Your task to perform on an android device: open a bookmark in the chrome app Image 0: 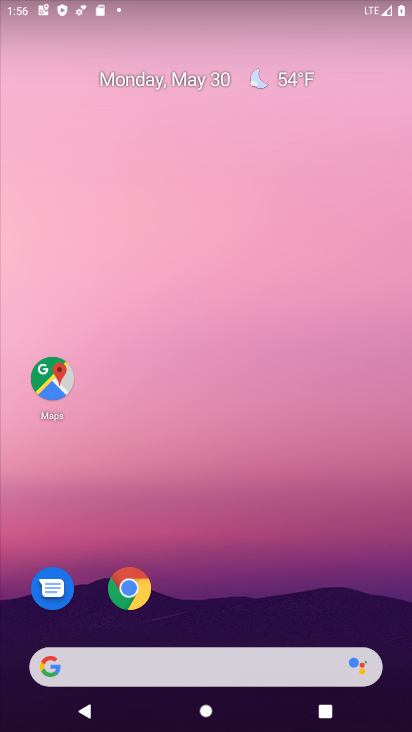
Step 0: click (130, 588)
Your task to perform on an android device: open a bookmark in the chrome app Image 1: 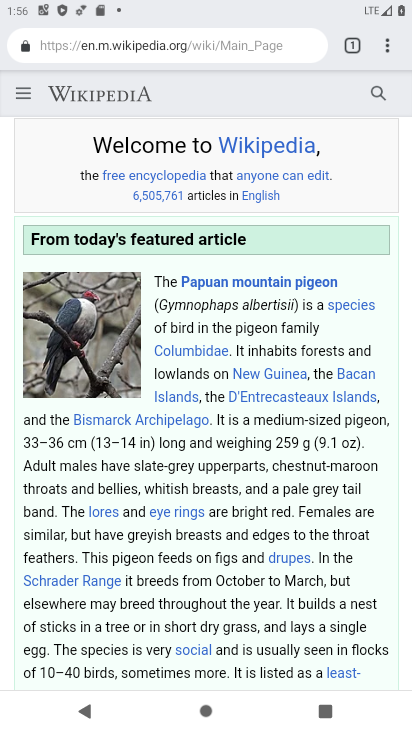
Step 1: click (386, 47)
Your task to perform on an android device: open a bookmark in the chrome app Image 2: 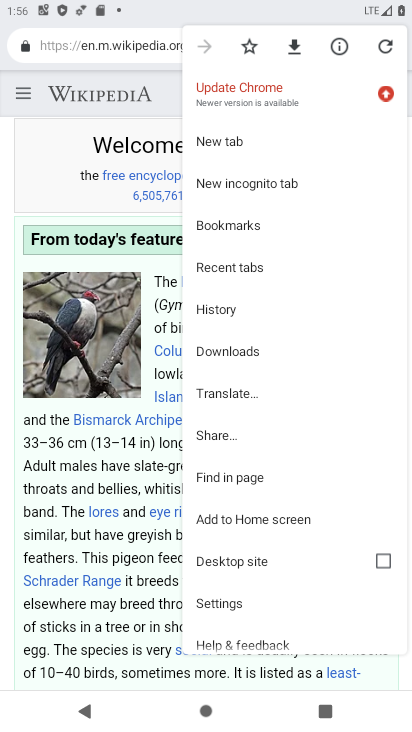
Step 2: click (242, 228)
Your task to perform on an android device: open a bookmark in the chrome app Image 3: 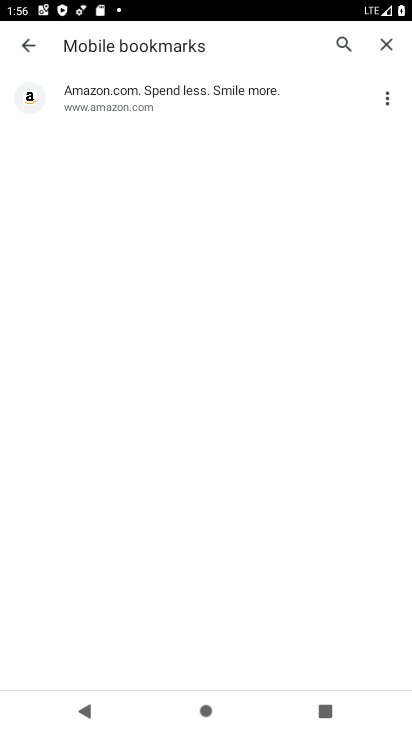
Step 3: click (139, 99)
Your task to perform on an android device: open a bookmark in the chrome app Image 4: 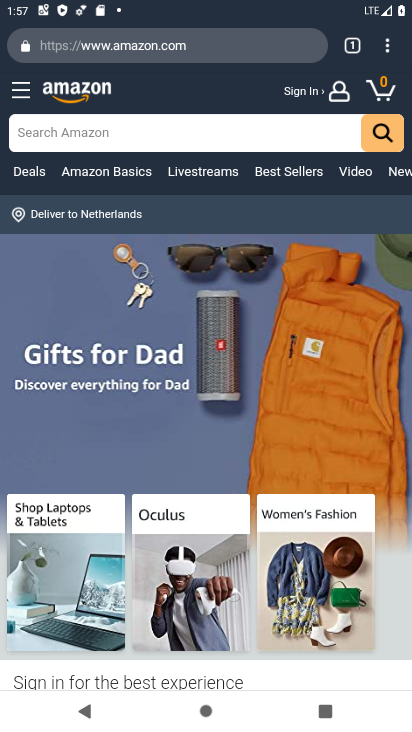
Step 4: click (387, 45)
Your task to perform on an android device: open a bookmark in the chrome app Image 5: 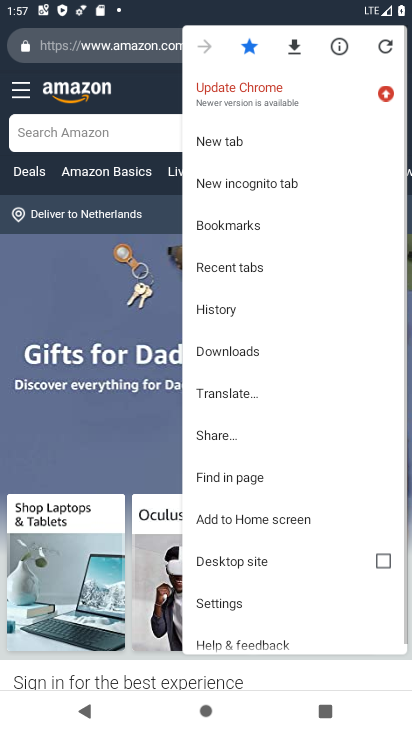
Step 5: click (260, 232)
Your task to perform on an android device: open a bookmark in the chrome app Image 6: 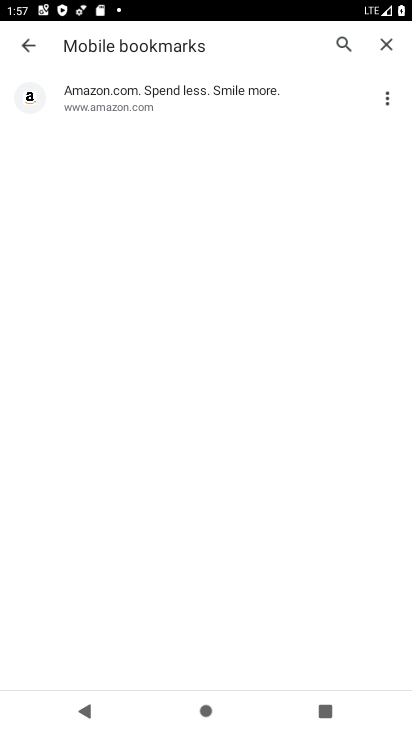
Step 6: click (145, 103)
Your task to perform on an android device: open a bookmark in the chrome app Image 7: 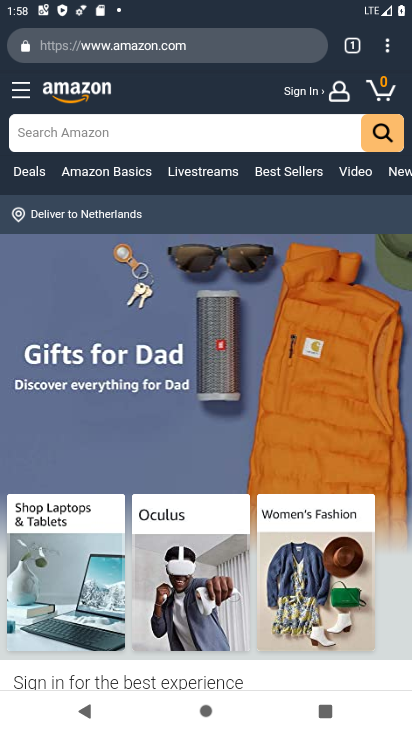
Step 7: task complete